Your task to perform on an android device: turn on priority inbox in the gmail app Image 0: 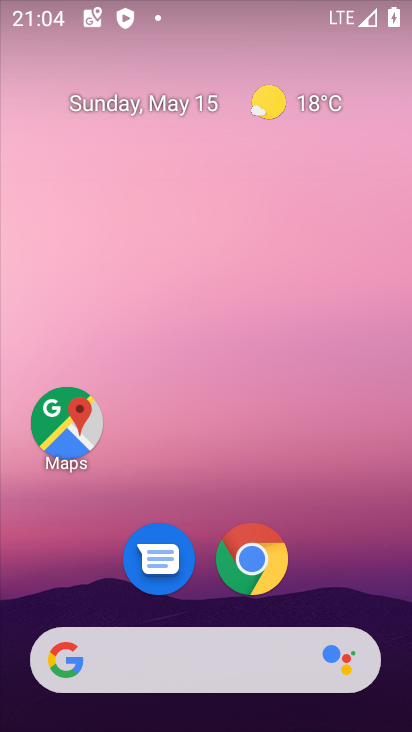
Step 0: drag from (307, 459) to (226, 90)
Your task to perform on an android device: turn on priority inbox in the gmail app Image 1: 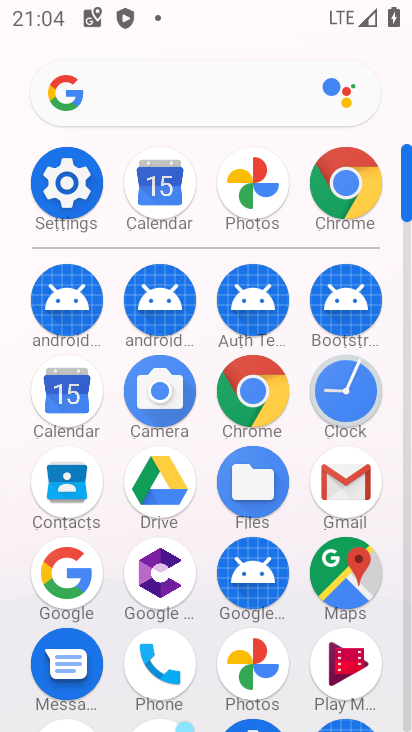
Step 1: click (358, 473)
Your task to perform on an android device: turn on priority inbox in the gmail app Image 2: 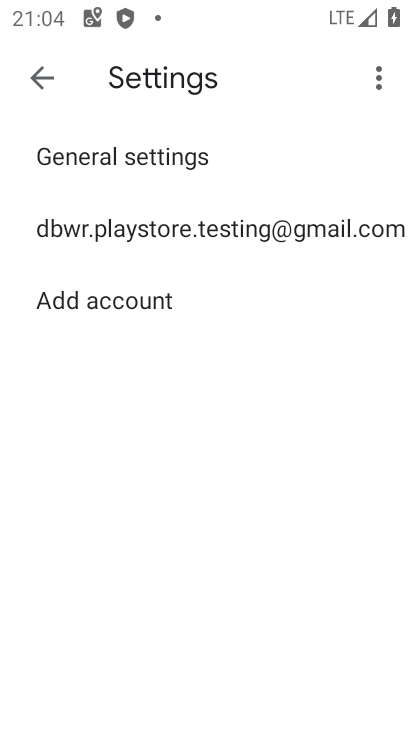
Step 2: click (158, 228)
Your task to perform on an android device: turn on priority inbox in the gmail app Image 3: 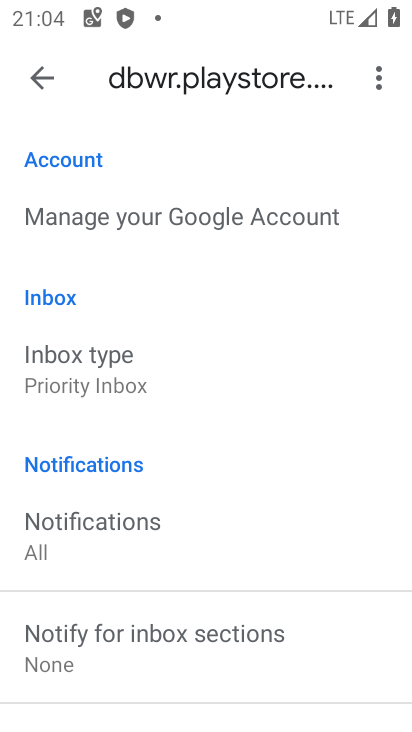
Step 3: click (107, 360)
Your task to perform on an android device: turn on priority inbox in the gmail app Image 4: 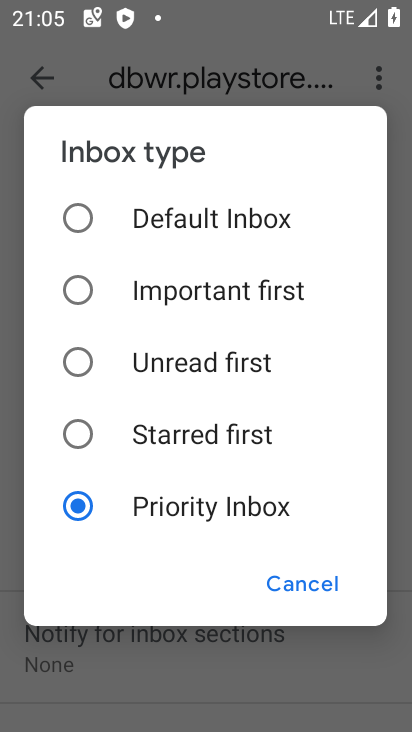
Step 4: task complete